Your task to perform on an android device: turn off improve location accuracy Image 0: 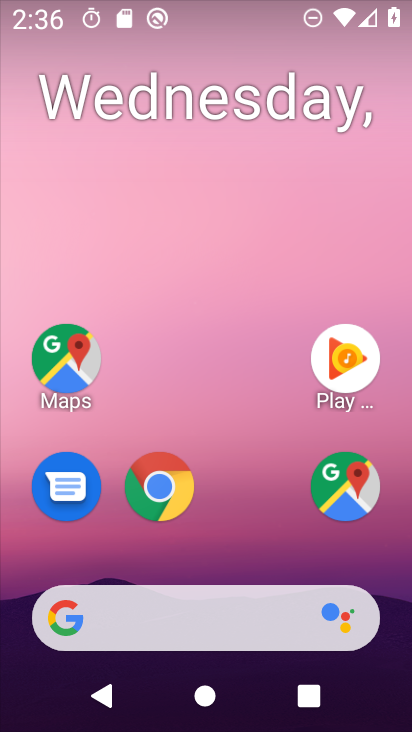
Step 0: press home button
Your task to perform on an android device: turn off improve location accuracy Image 1: 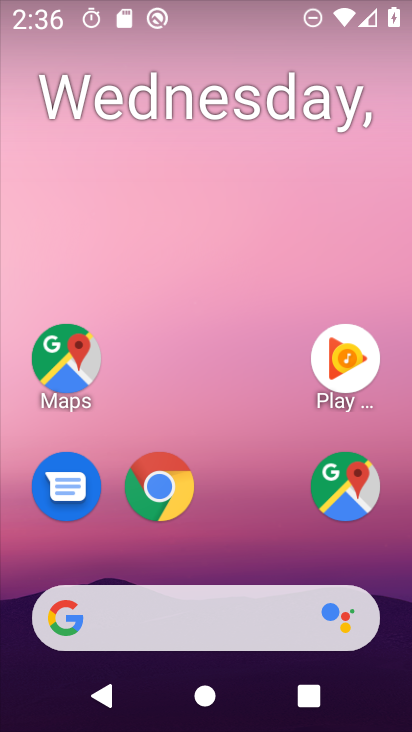
Step 1: drag from (222, 533) to (224, 173)
Your task to perform on an android device: turn off improve location accuracy Image 2: 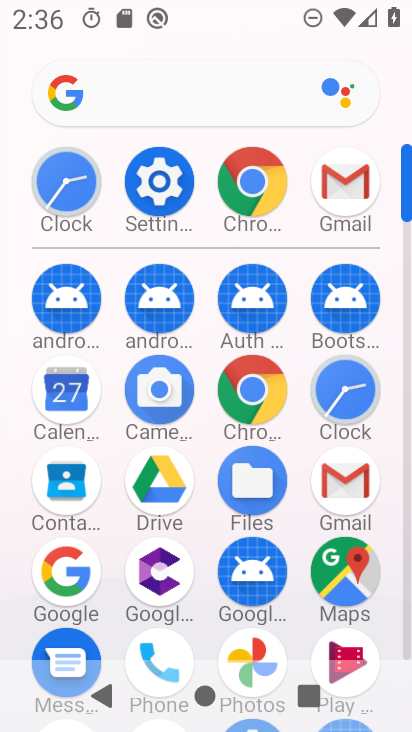
Step 2: click (162, 183)
Your task to perform on an android device: turn off improve location accuracy Image 3: 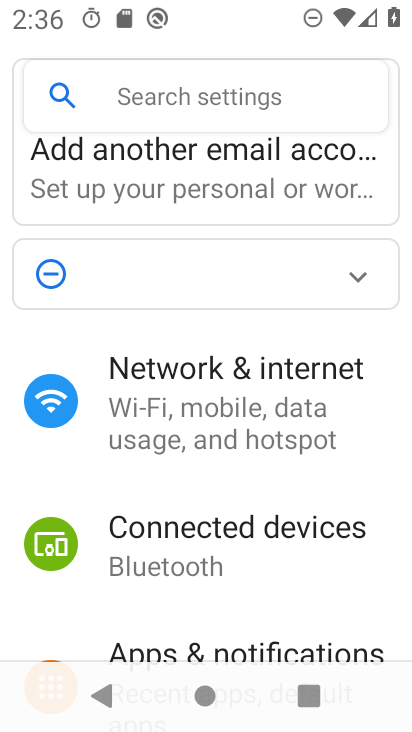
Step 3: drag from (342, 577) to (355, 438)
Your task to perform on an android device: turn off improve location accuracy Image 4: 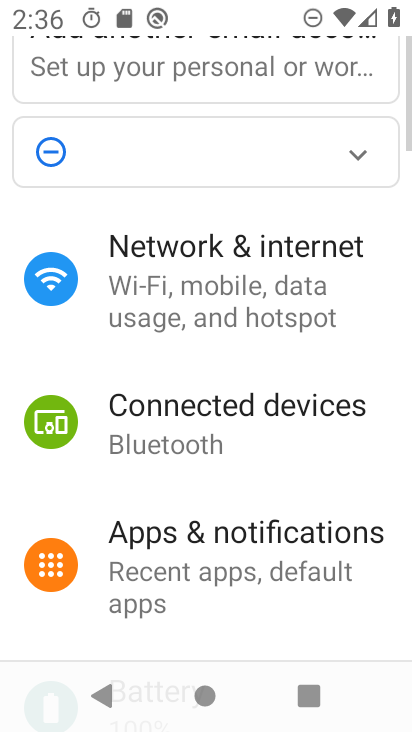
Step 4: drag from (347, 551) to (356, 404)
Your task to perform on an android device: turn off improve location accuracy Image 5: 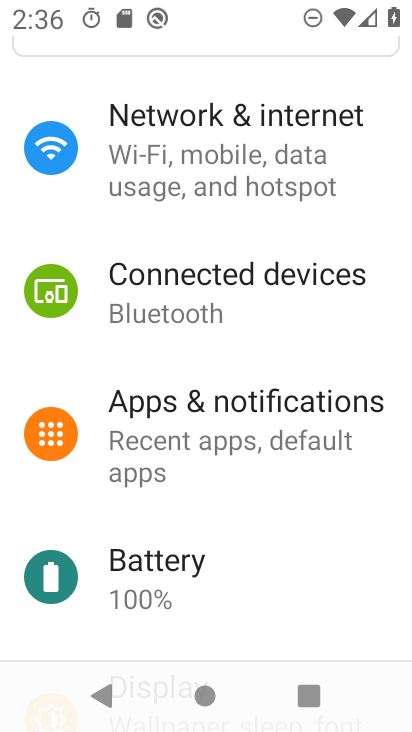
Step 5: drag from (354, 514) to (349, 410)
Your task to perform on an android device: turn off improve location accuracy Image 6: 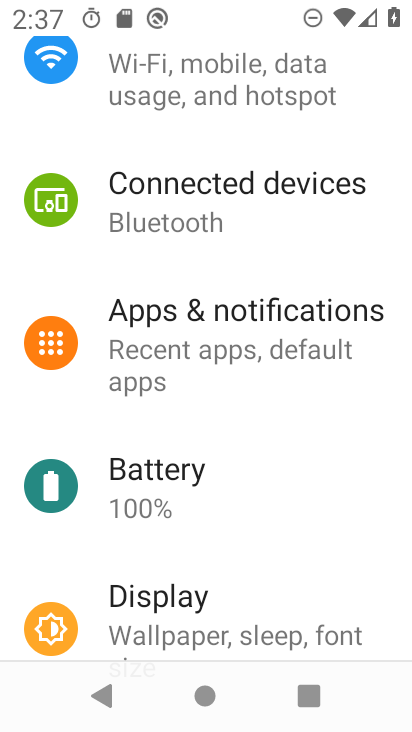
Step 6: drag from (306, 550) to (310, 410)
Your task to perform on an android device: turn off improve location accuracy Image 7: 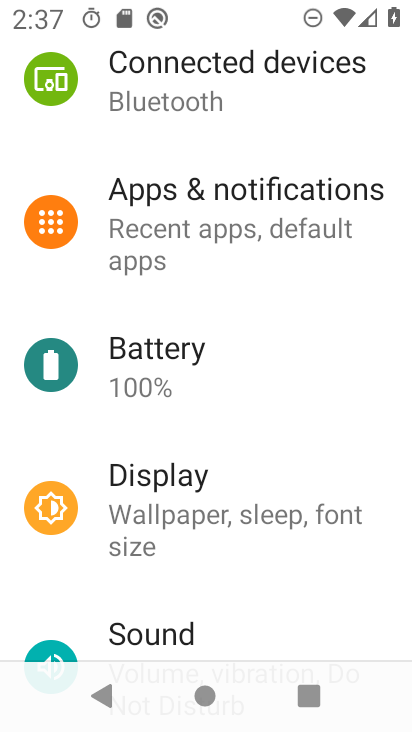
Step 7: drag from (304, 556) to (310, 483)
Your task to perform on an android device: turn off improve location accuracy Image 8: 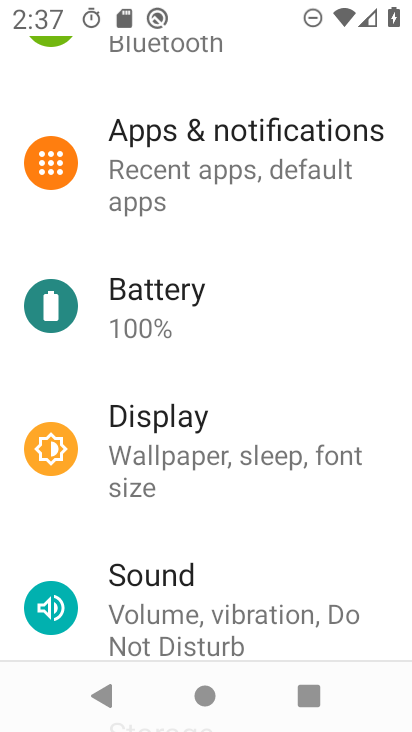
Step 8: drag from (300, 551) to (309, 446)
Your task to perform on an android device: turn off improve location accuracy Image 9: 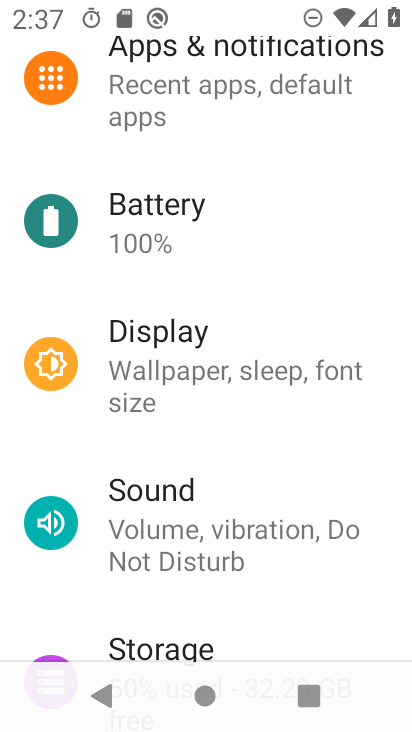
Step 9: drag from (318, 567) to (318, 483)
Your task to perform on an android device: turn off improve location accuracy Image 10: 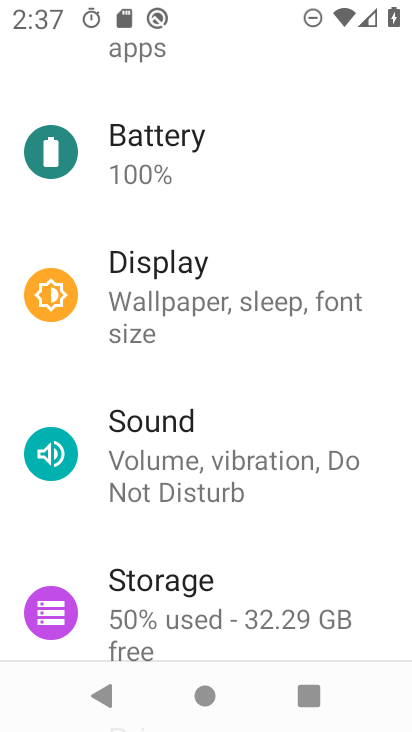
Step 10: drag from (303, 561) to (311, 471)
Your task to perform on an android device: turn off improve location accuracy Image 11: 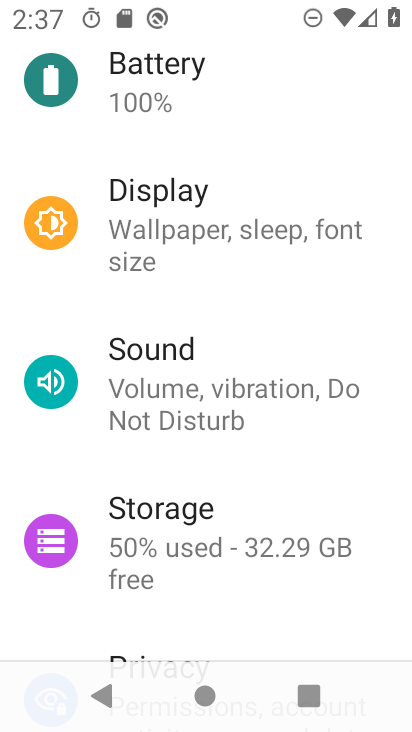
Step 11: drag from (312, 581) to (313, 493)
Your task to perform on an android device: turn off improve location accuracy Image 12: 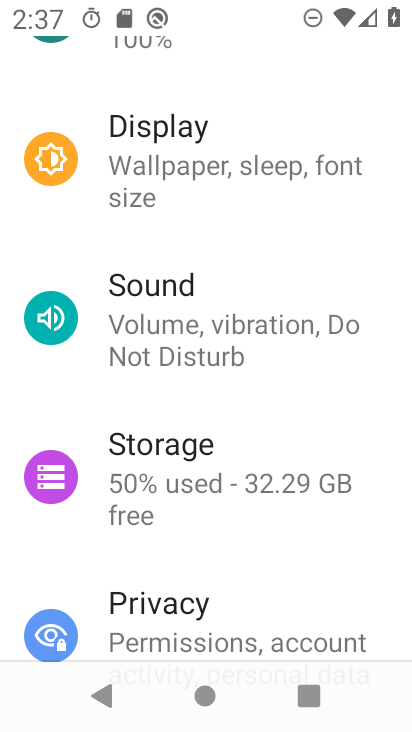
Step 12: drag from (311, 570) to (319, 396)
Your task to perform on an android device: turn off improve location accuracy Image 13: 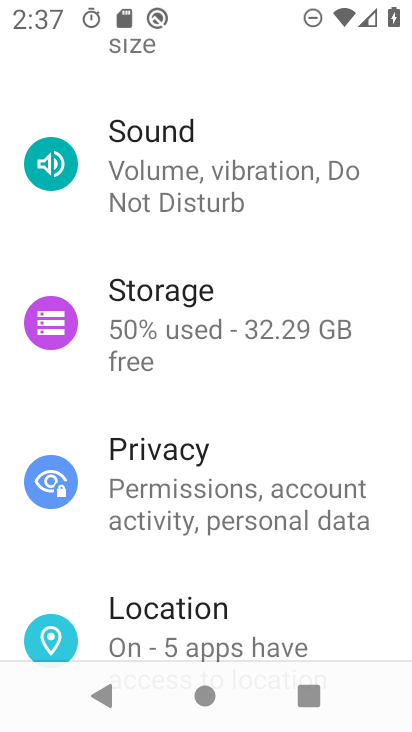
Step 13: drag from (299, 565) to (293, 439)
Your task to perform on an android device: turn off improve location accuracy Image 14: 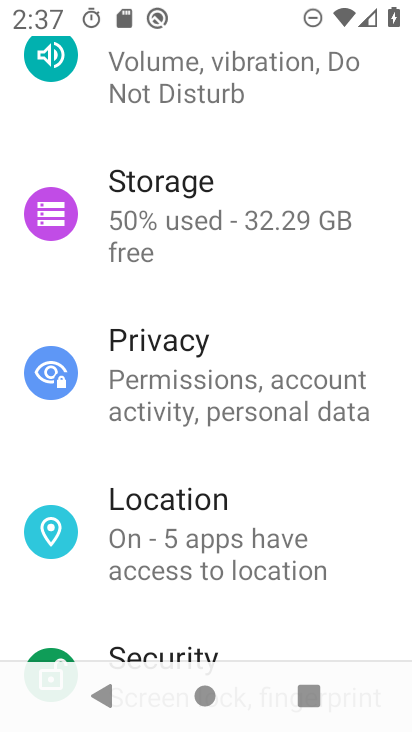
Step 14: click (278, 542)
Your task to perform on an android device: turn off improve location accuracy Image 15: 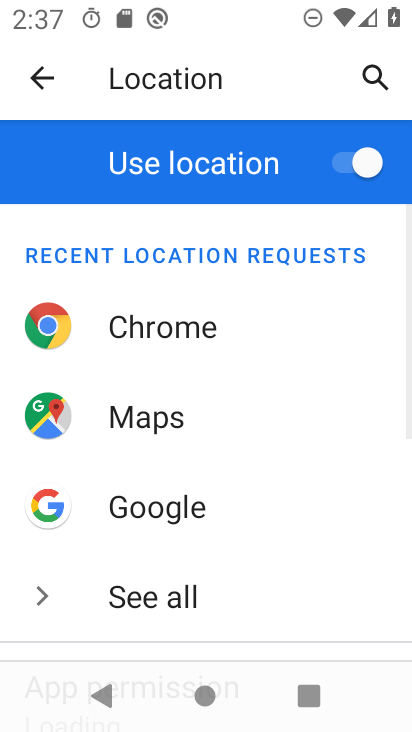
Step 15: drag from (304, 568) to (306, 436)
Your task to perform on an android device: turn off improve location accuracy Image 16: 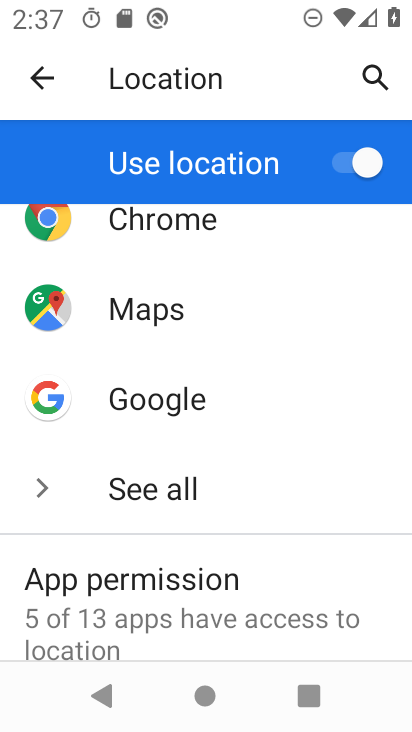
Step 16: drag from (306, 529) to (295, 431)
Your task to perform on an android device: turn off improve location accuracy Image 17: 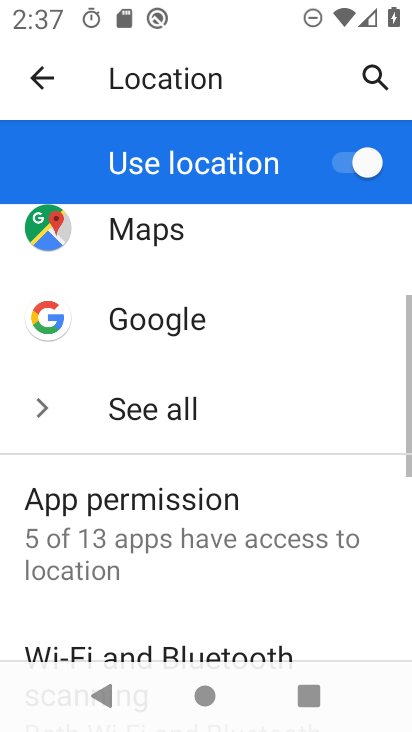
Step 17: drag from (305, 564) to (301, 388)
Your task to perform on an android device: turn off improve location accuracy Image 18: 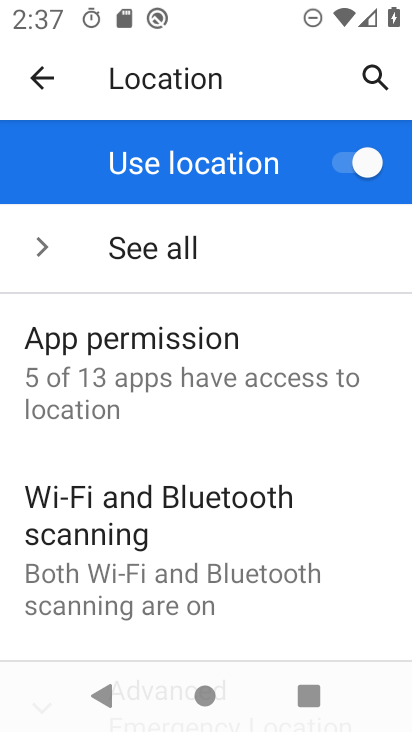
Step 18: drag from (343, 593) to (351, 389)
Your task to perform on an android device: turn off improve location accuracy Image 19: 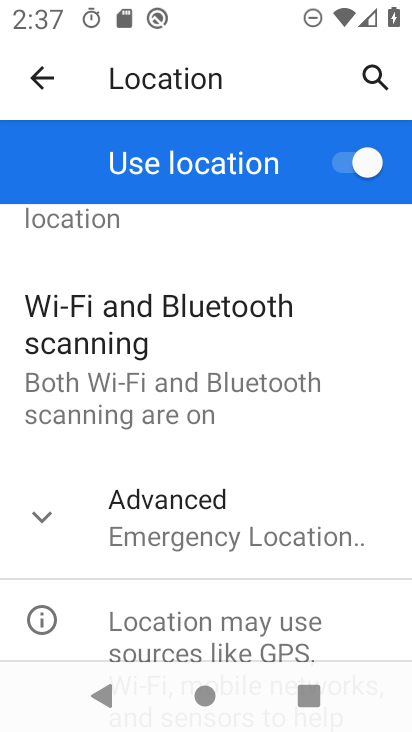
Step 19: click (340, 558)
Your task to perform on an android device: turn off improve location accuracy Image 20: 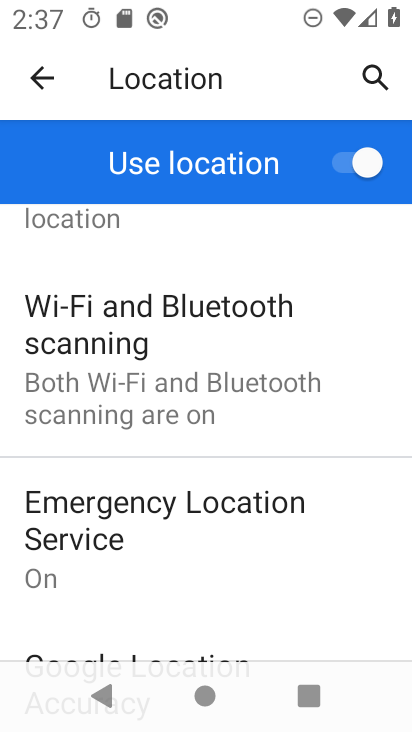
Step 20: drag from (292, 589) to (291, 473)
Your task to perform on an android device: turn off improve location accuracy Image 21: 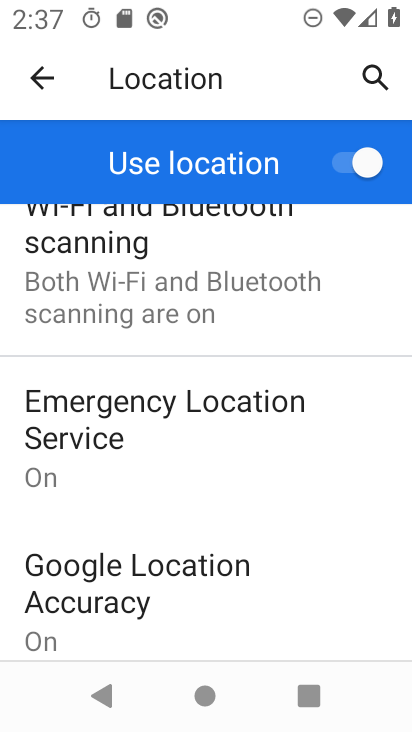
Step 21: drag from (295, 580) to (297, 406)
Your task to perform on an android device: turn off improve location accuracy Image 22: 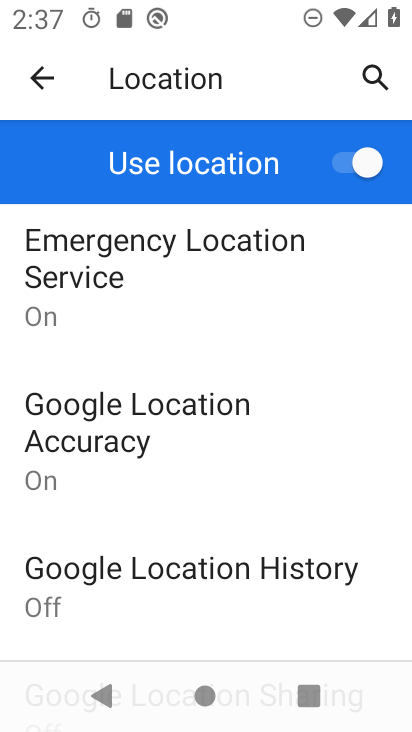
Step 22: click (155, 447)
Your task to perform on an android device: turn off improve location accuracy Image 23: 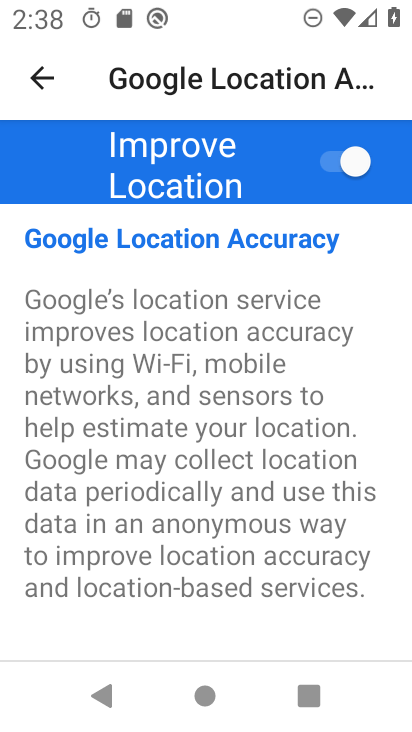
Step 23: click (342, 163)
Your task to perform on an android device: turn off improve location accuracy Image 24: 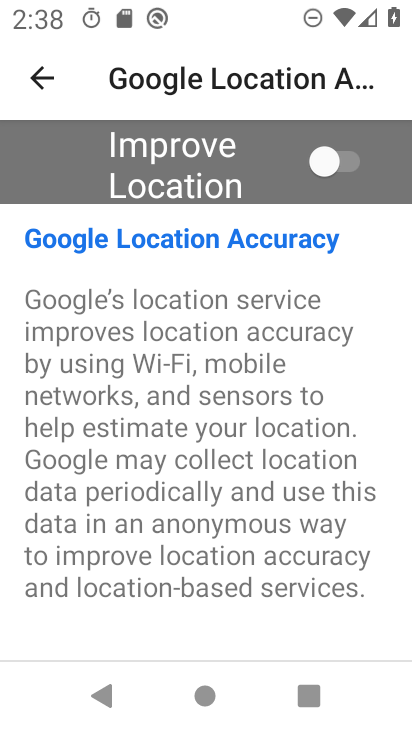
Step 24: task complete